Your task to perform on an android device: toggle improve location accuracy Image 0: 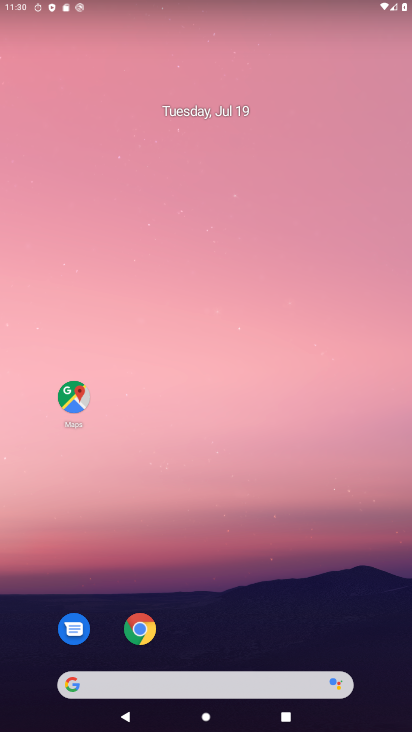
Step 0: drag from (278, 623) to (69, 24)
Your task to perform on an android device: toggle improve location accuracy Image 1: 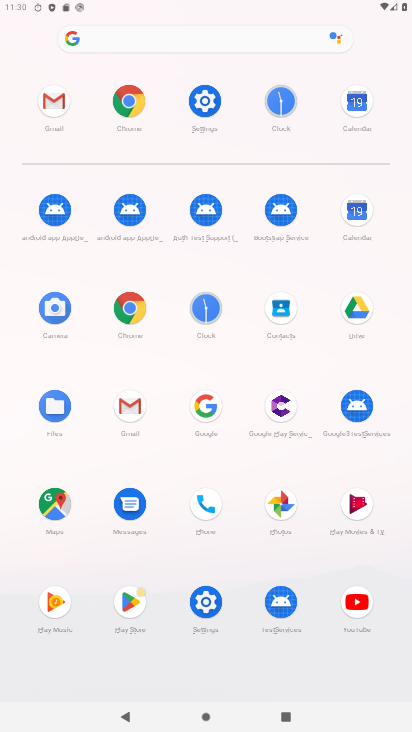
Step 1: click (206, 120)
Your task to perform on an android device: toggle improve location accuracy Image 2: 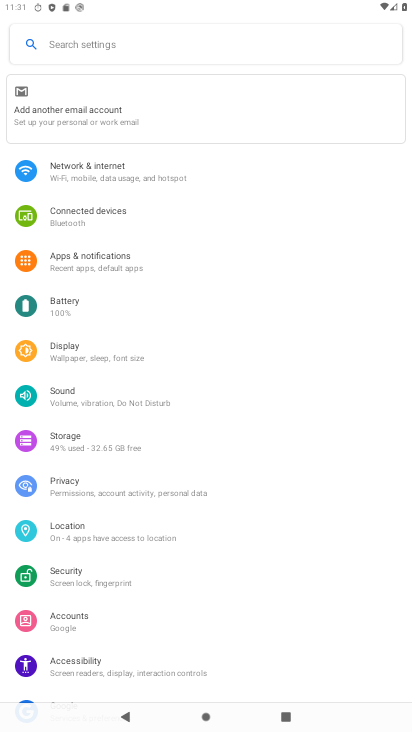
Step 2: click (112, 535)
Your task to perform on an android device: toggle improve location accuracy Image 3: 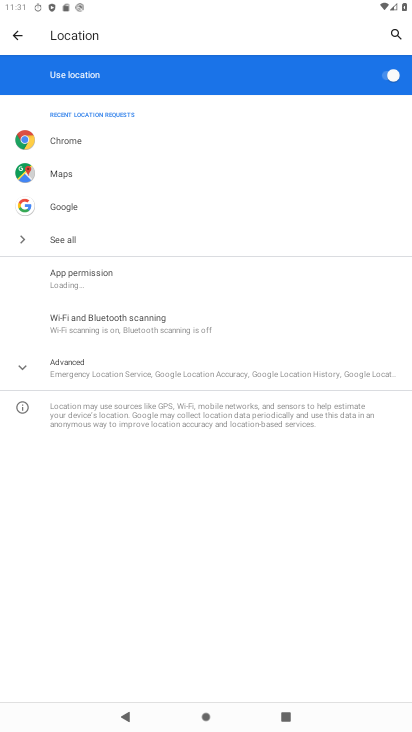
Step 3: click (53, 363)
Your task to perform on an android device: toggle improve location accuracy Image 4: 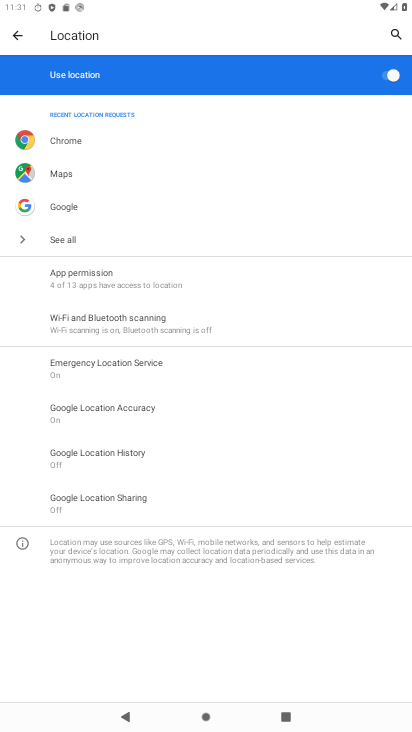
Step 4: click (121, 403)
Your task to perform on an android device: toggle improve location accuracy Image 5: 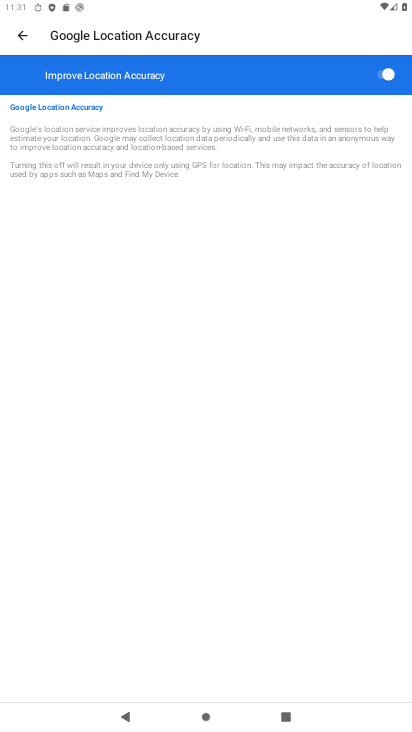
Step 5: click (387, 77)
Your task to perform on an android device: toggle improve location accuracy Image 6: 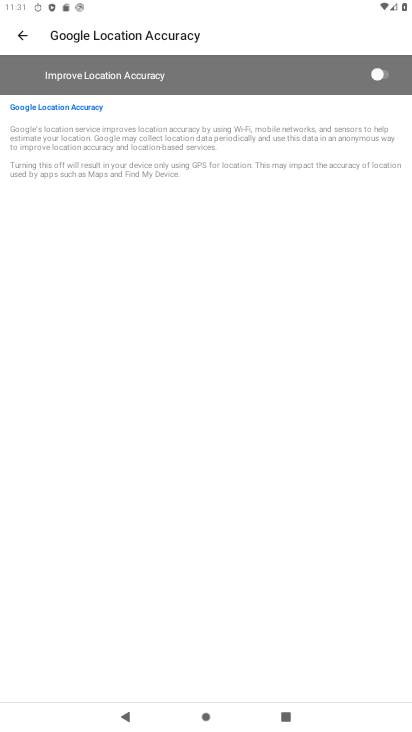
Step 6: task complete